Your task to perform on an android device: open app "Messages" (install if not already installed), go to login, and select forgot password Image 0: 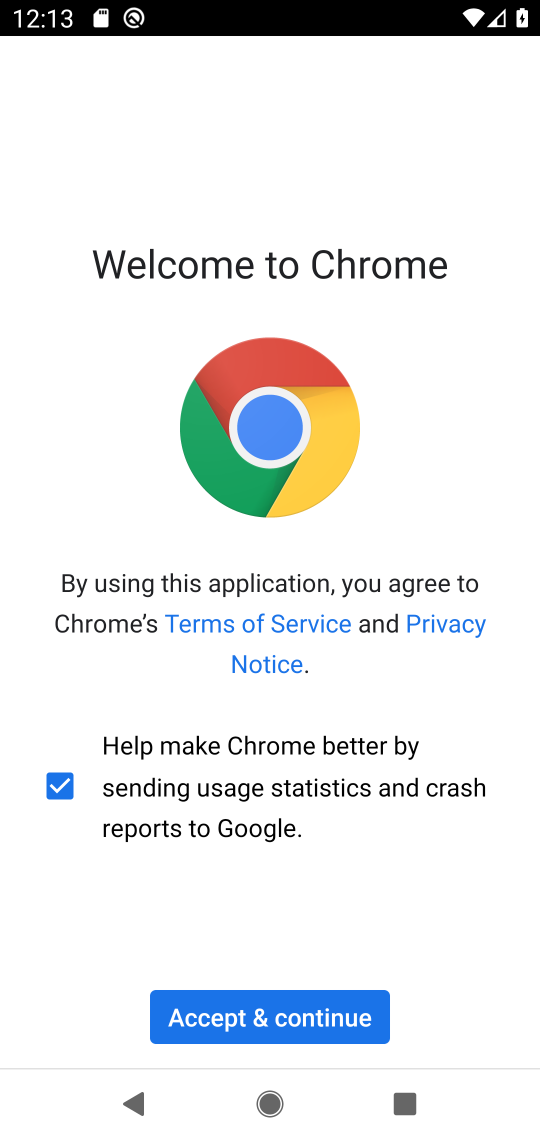
Step 0: press home button
Your task to perform on an android device: open app "Messages" (install if not already installed), go to login, and select forgot password Image 1: 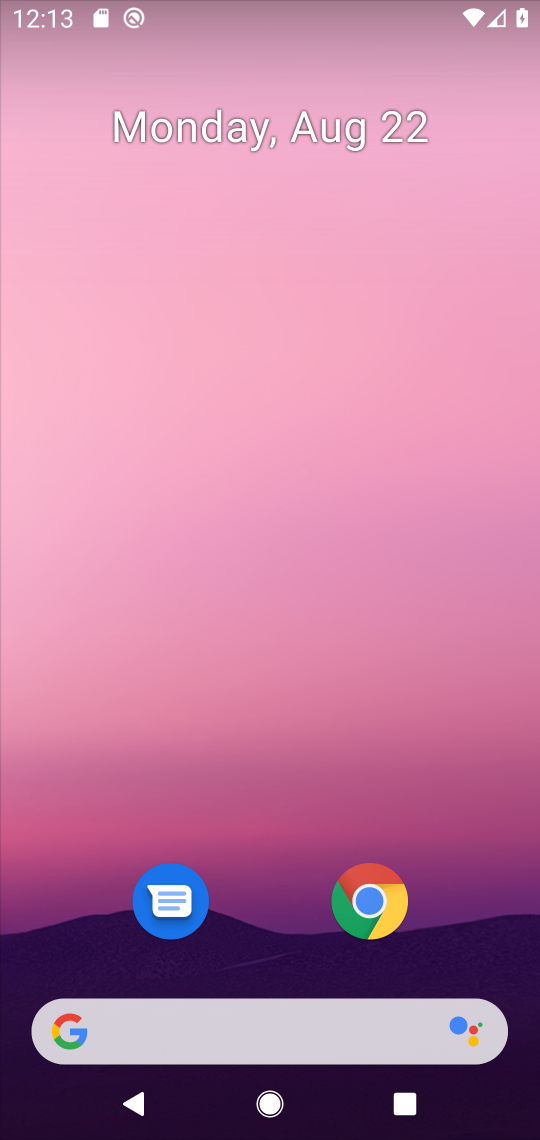
Step 1: drag from (285, 966) to (346, 118)
Your task to perform on an android device: open app "Messages" (install if not already installed), go to login, and select forgot password Image 2: 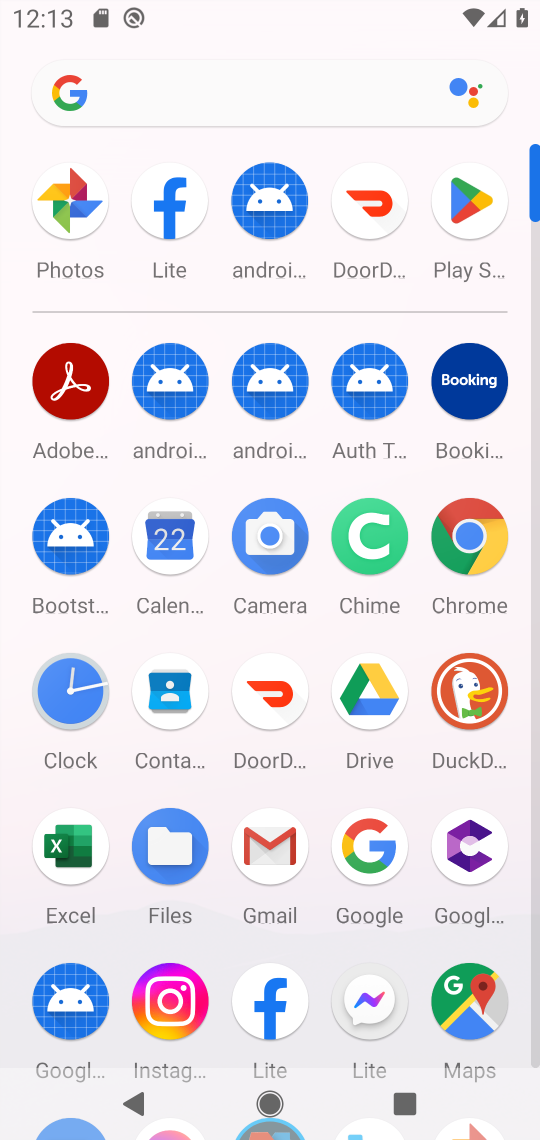
Step 2: press home button
Your task to perform on an android device: open app "Messages" (install if not already installed), go to login, and select forgot password Image 3: 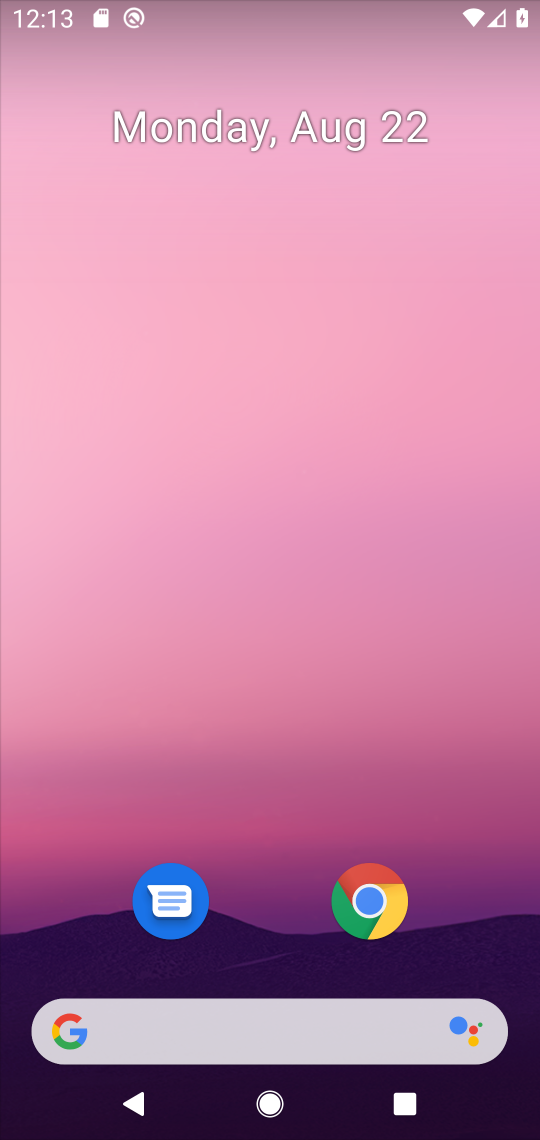
Step 3: click (140, 893)
Your task to perform on an android device: open app "Messages" (install if not already installed), go to login, and select forgot password Image 4: 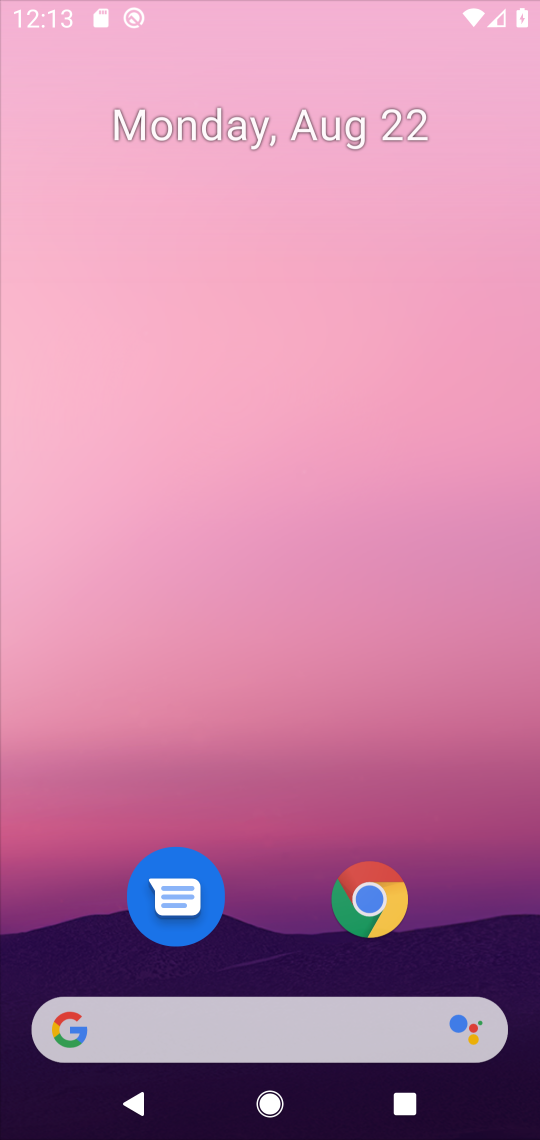
Step 4: task complete